Your task to perform on an android device: Open Youtube and go to "Your channel" Image 0: 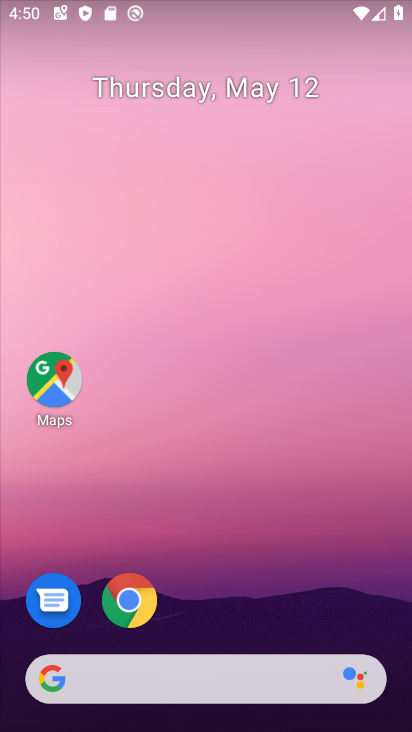
Step 0: drag from (150, 639) to (183, 324)
Your task to perform on an android device: Open Youtube and go to "Your channel" Image 1: 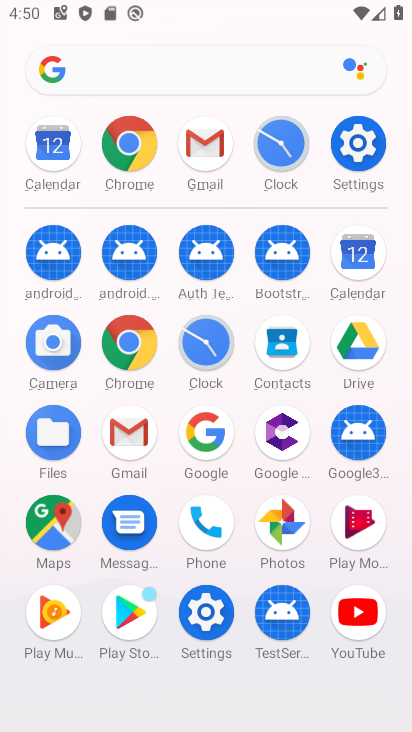
Step 1: click (361, 628)
Your task to perform on an android device: Open Youtube and go to "Your channel" Image 2: 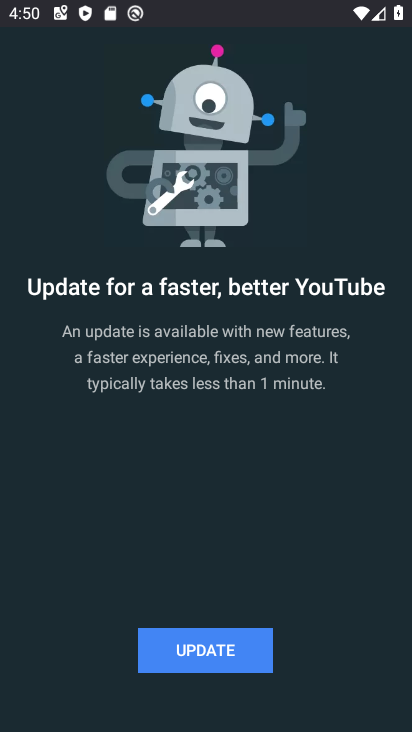
Step 2: click (327, 586)
Your task to perform on an android device: Open Youtube and go to "Your channel" Image 3: 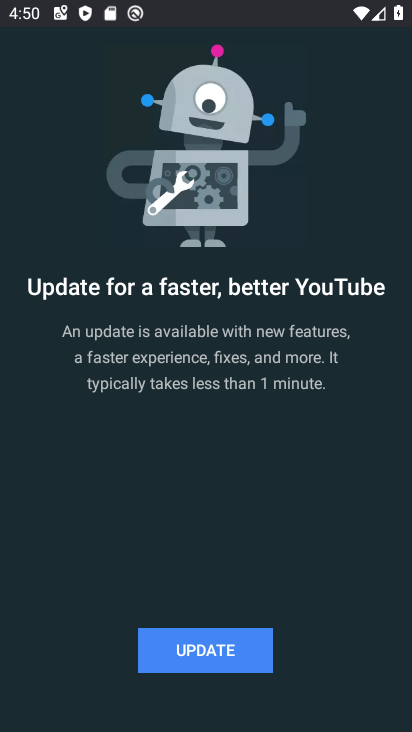
Step 3: press home button
Your task to perform on an android device: Open Youtube and go to "Your channel" Image 4: 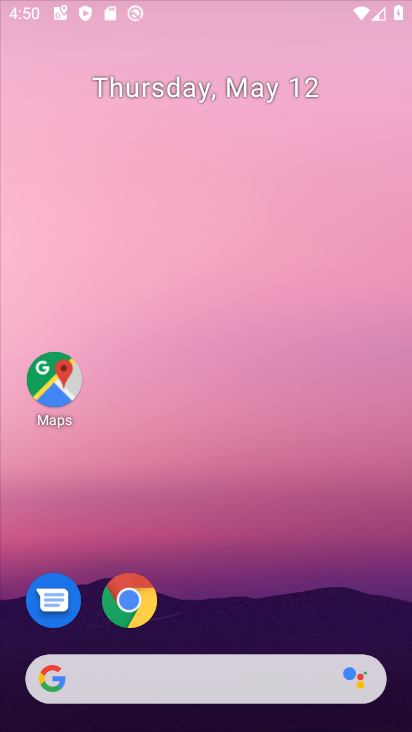
Step 4: drag from (228, 588) to (230, 208)
Your task to perform on an android device: Open Youtube and go to "Your channel" Image 5: 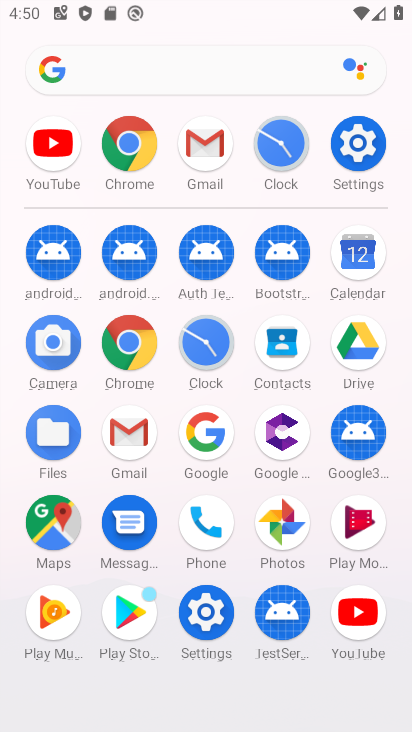
Step 5: click (362, 605)
Your task to perform on an android device: Open Youtube and go to "Your channel" Image 6: 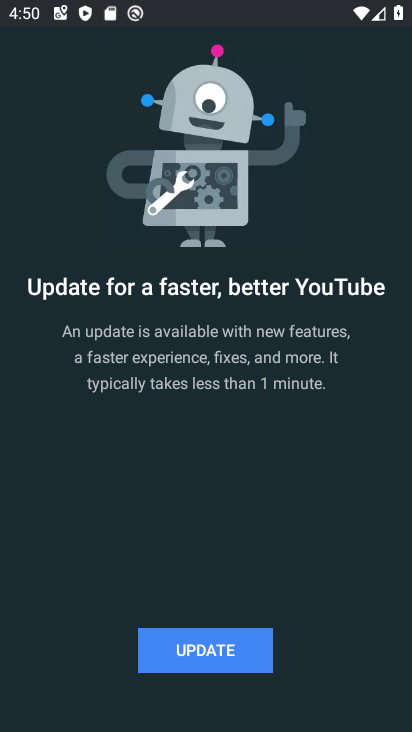
Step 6: drag from (230, 572) to (239, 220)
Your task to perform on an android device: Open Youtube and go to "Your channel" Image 7: 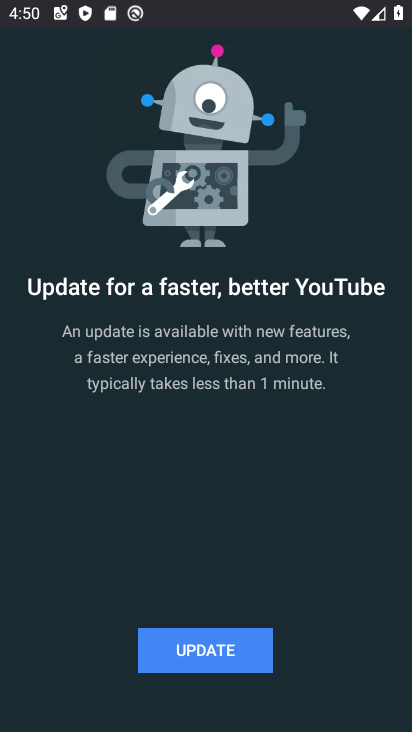
Step 7: press home button
Your task to perform on an android device: Open Youtube and go to "Your channel" Image 8: 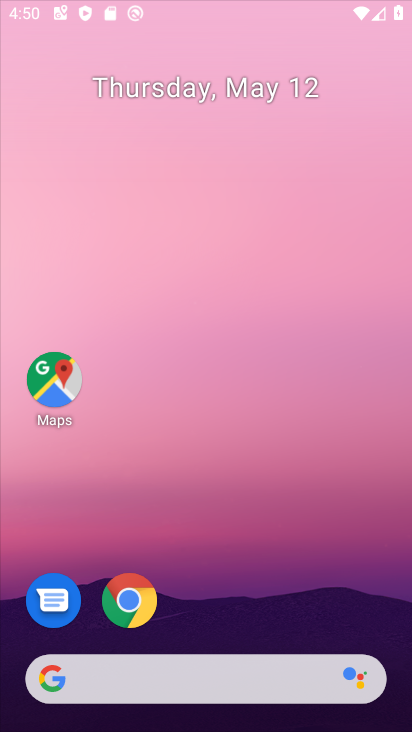
Step 8: drag from (227, 575) to (289, 179)
Your task to perform on an android device: Open Youtube and go to "Your channel" Image 9: 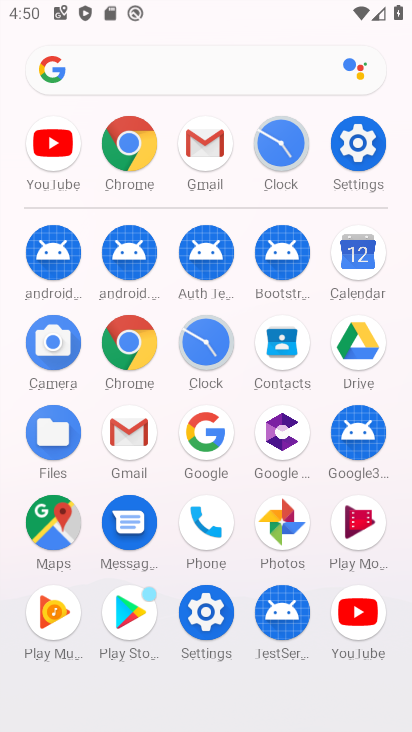
Step 9: click (360, 620)
Your task to perform on an android device: Open Youtube and go to "Your channel" Image 10: 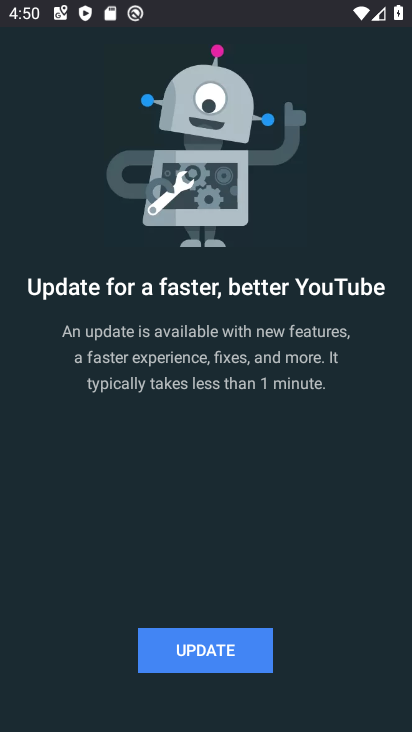
Step 10: task complete